Your task to perform on an android device: Search for flights from NYC to San Diego Image 0: 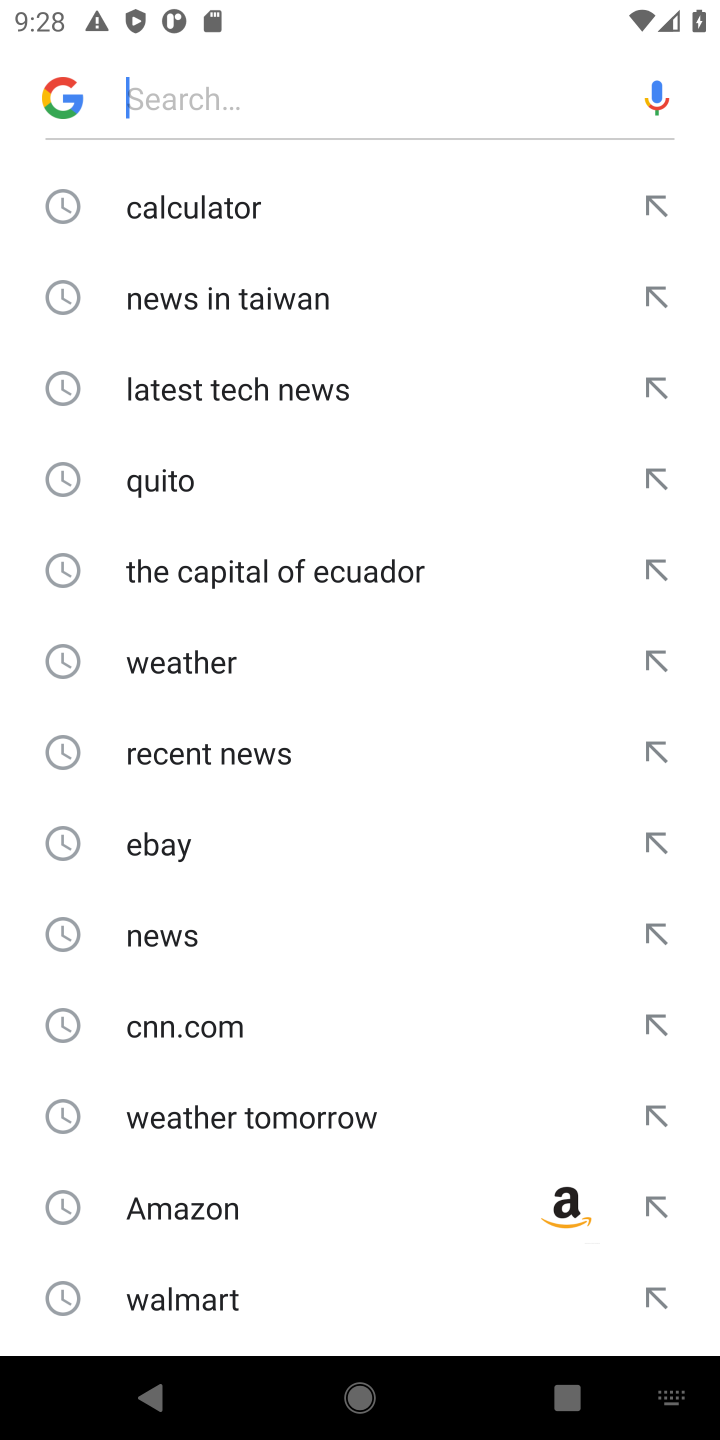
Step 0: press home button
Your task to perform on an android device: Search for flights from NYC to San Diego Image 1: 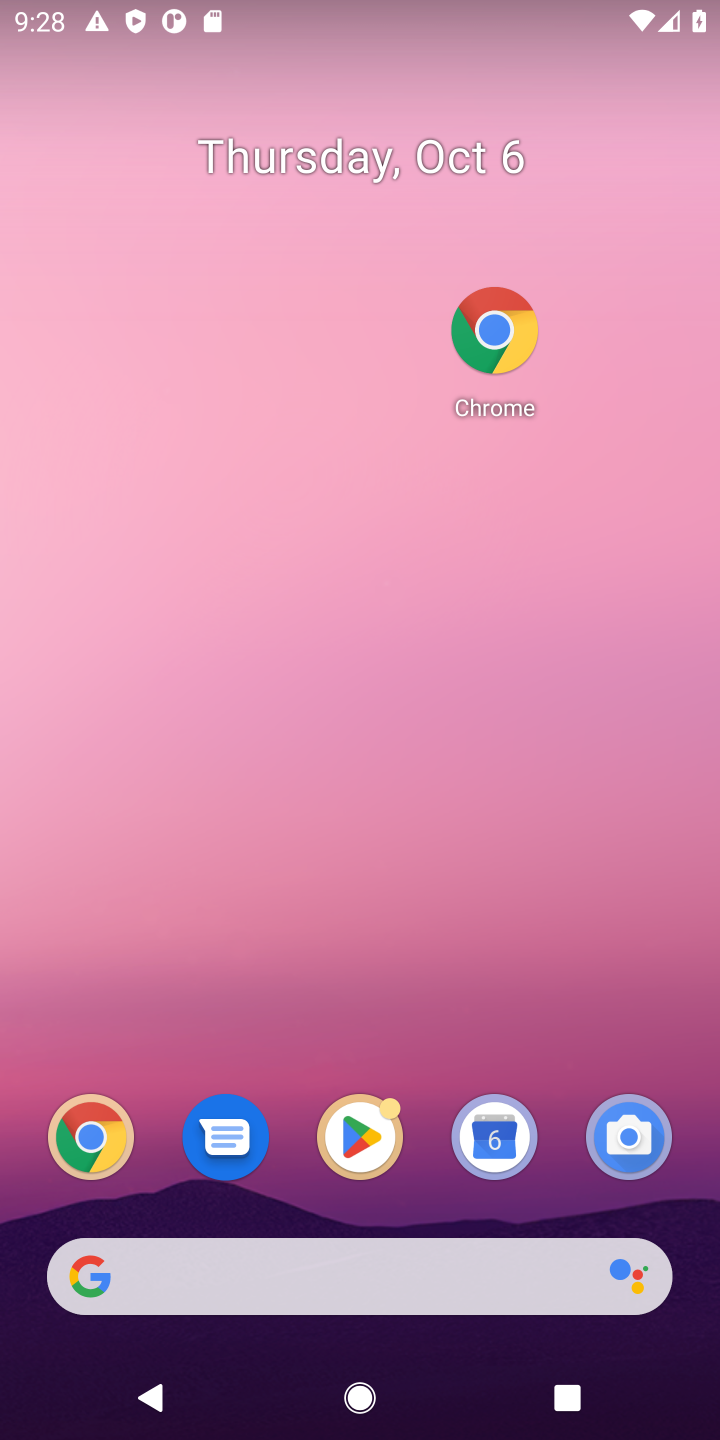
Step 1: click (77, 1144)
Your task to perform on an android device: Search for flights from NYC to San Diego Image 2: 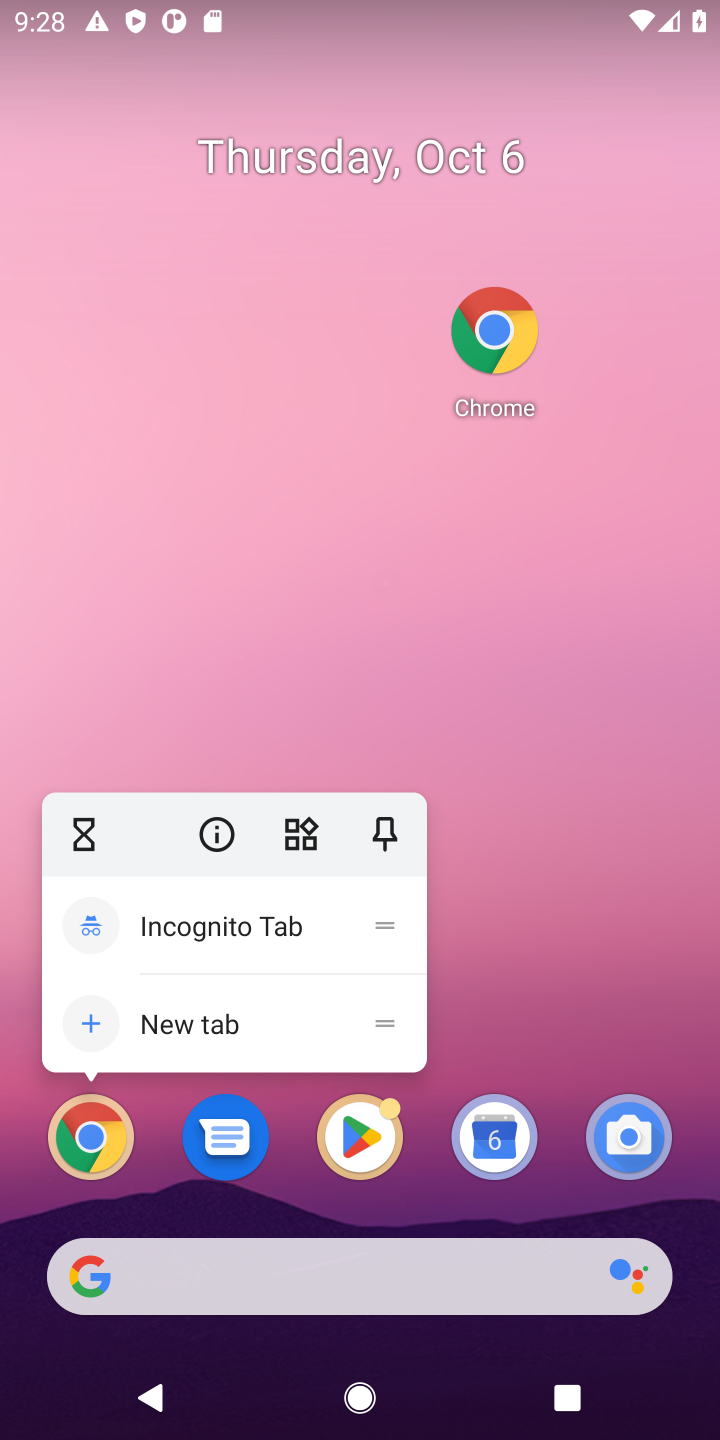
Step 2: click (80, 1142)
Your task to perform on an android device: Search for flights from NYC to San Diego Image 3: 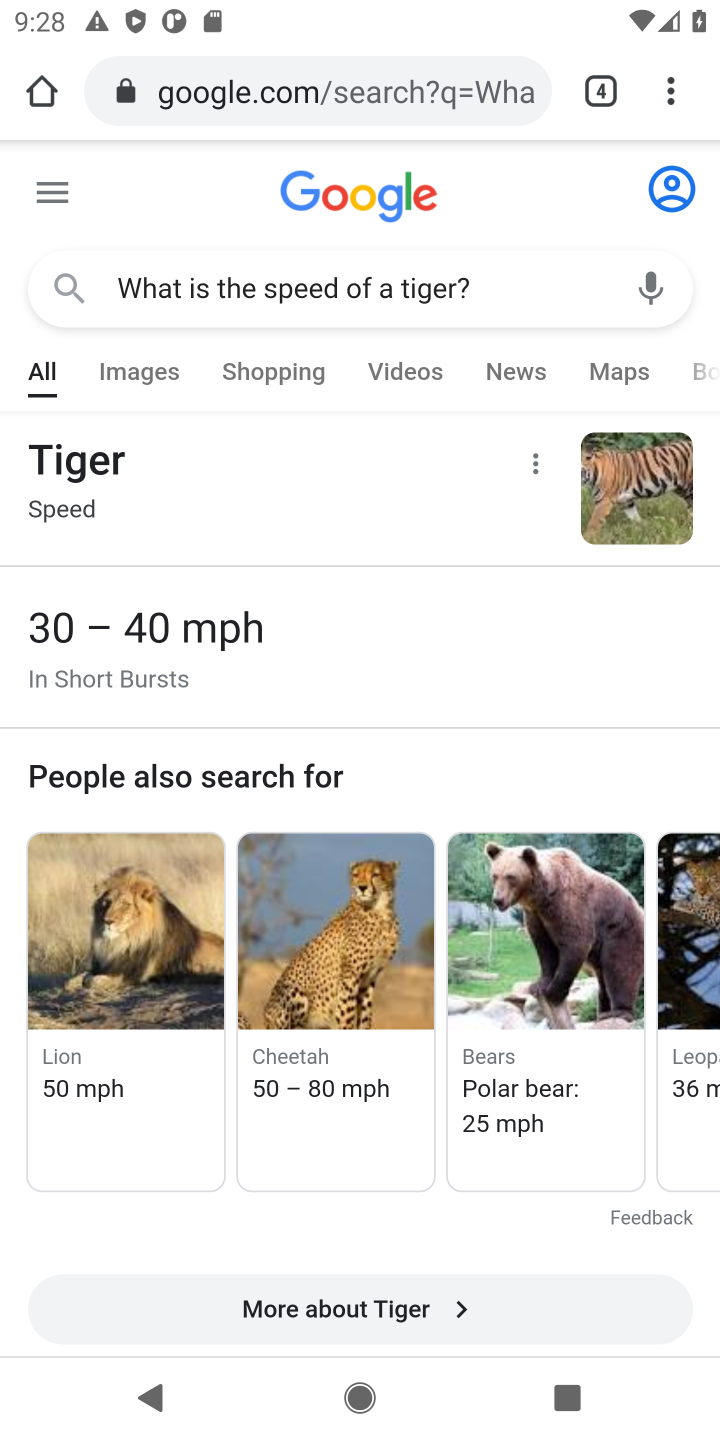
Step 3: click (481, 283)
Your task to perform on an android device: Search for flights from NYC to San Diego Image 4: 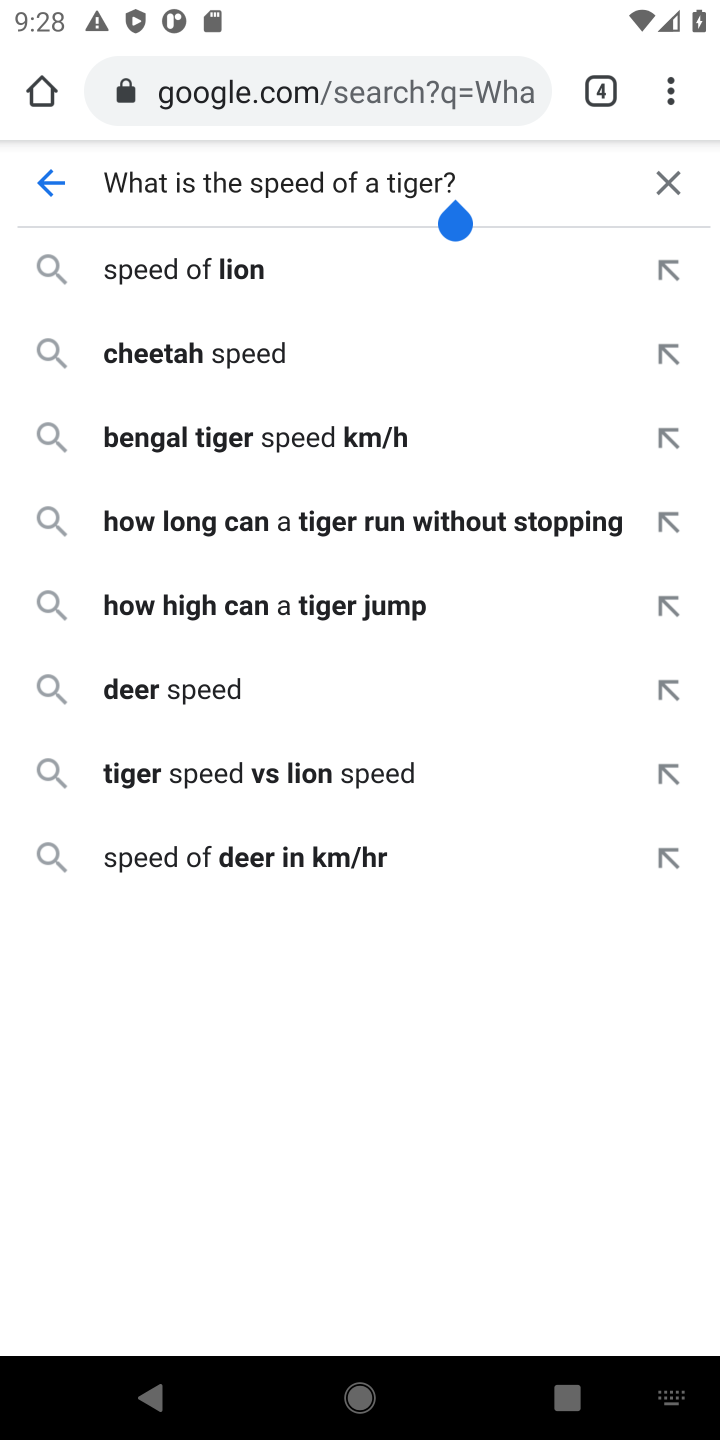
Step 4: click (681, 178)
Your task to perform on an android device: Search for flights from NYC to San Diego Image 5: 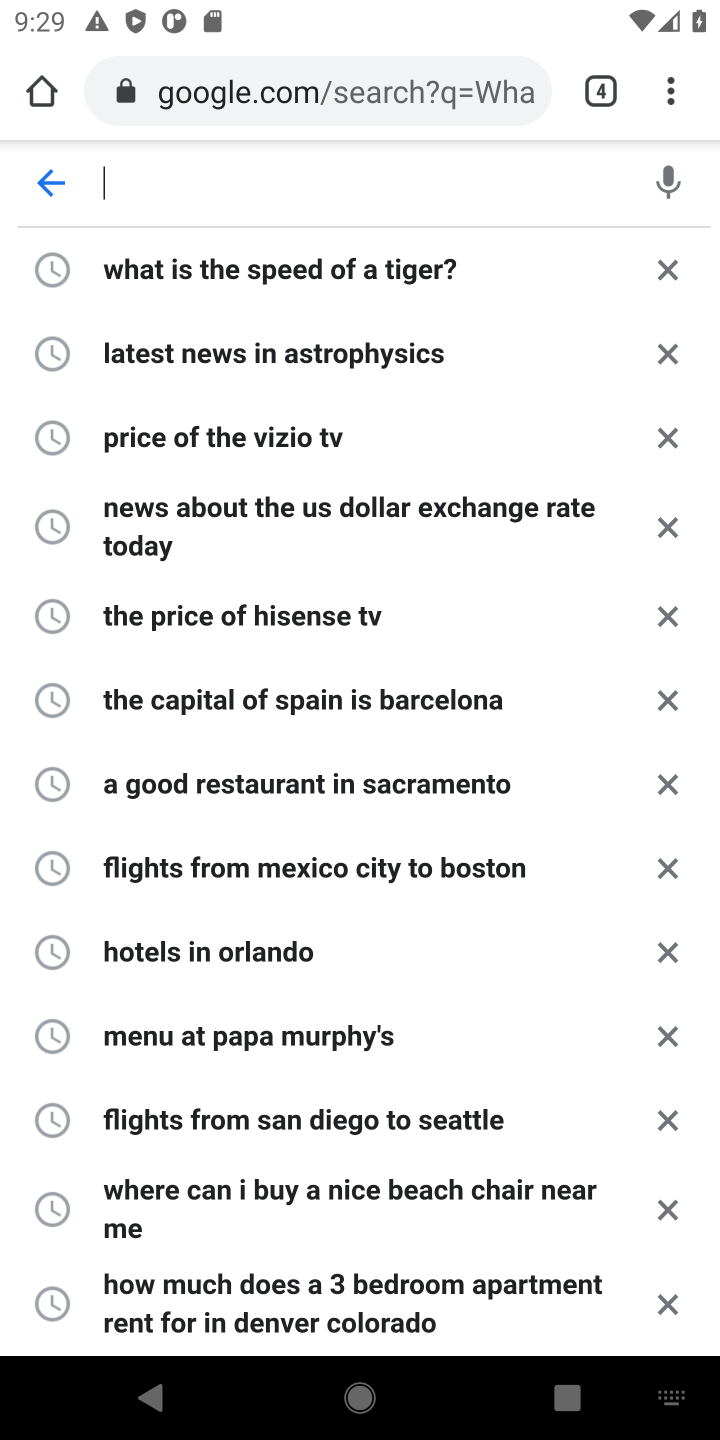
Step 5: type "flights from NYC to San Diego"
Your task to perform on an android device: Search for flights from NYC to San Diego Image 6: 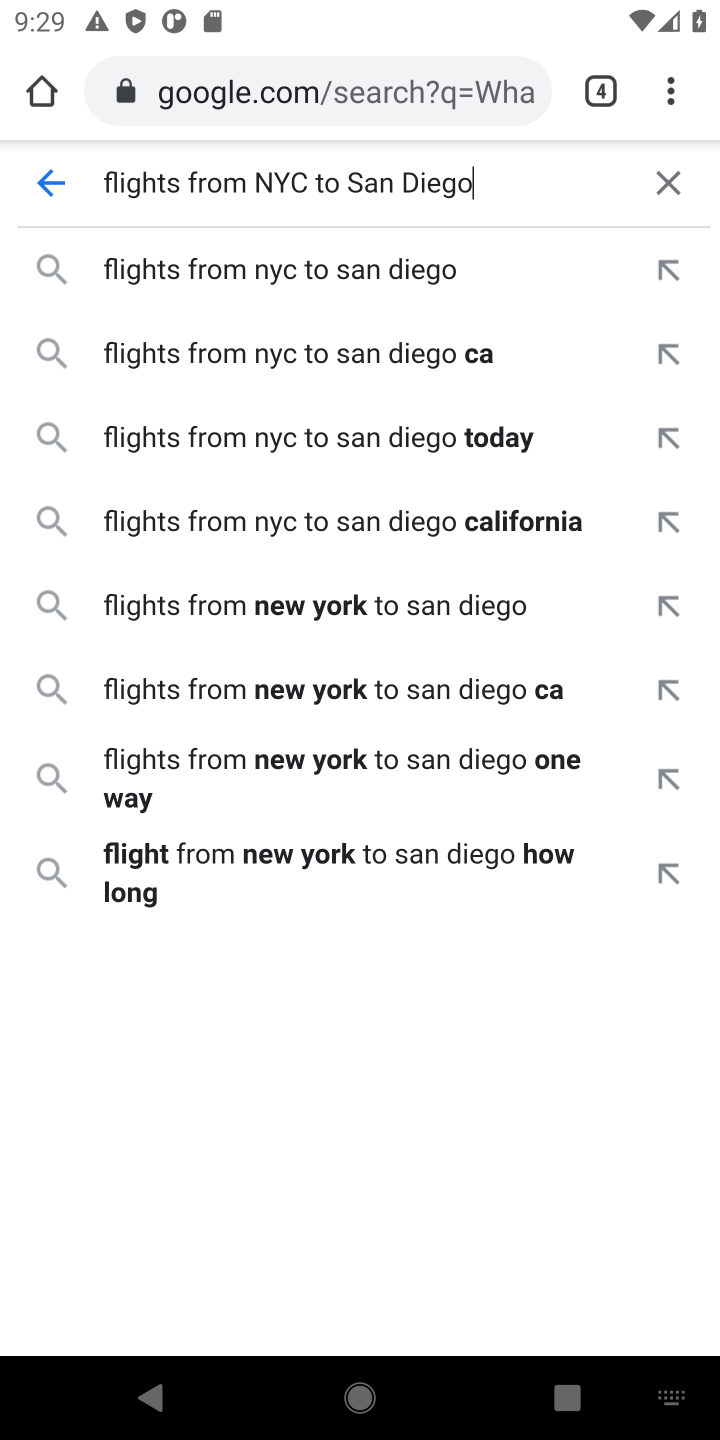
Step 6: click (363, 271)
Your task to perform on an android device: Search for flights from NYC to San Diego Image 7: 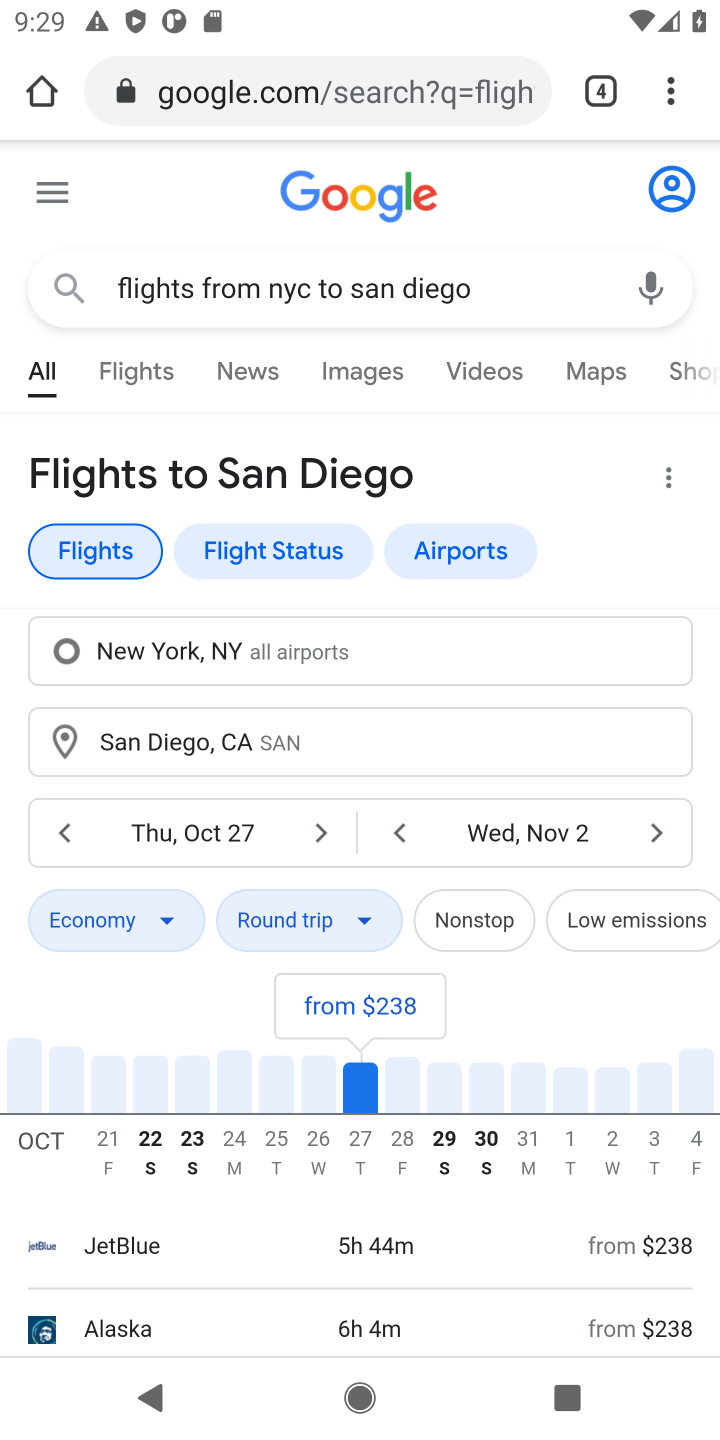
Step 7: task complete